Your task to perform on an android device: change the clock display to show seconds Image 0: 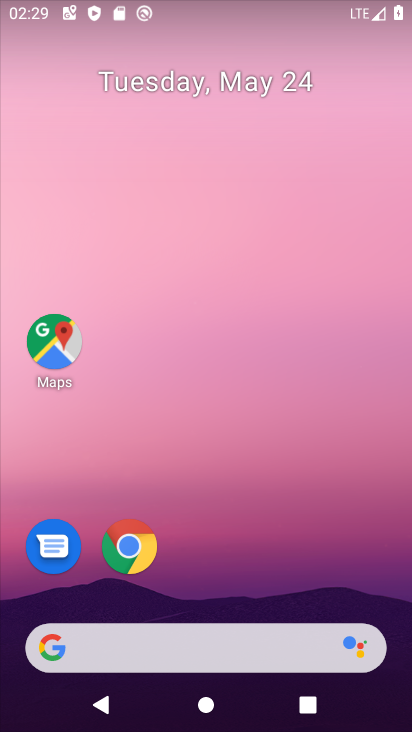
Step 0: drag from (139, 574) to (285, 186)
Your task to perform on an android device: change the clock display to show seconds Image 1: 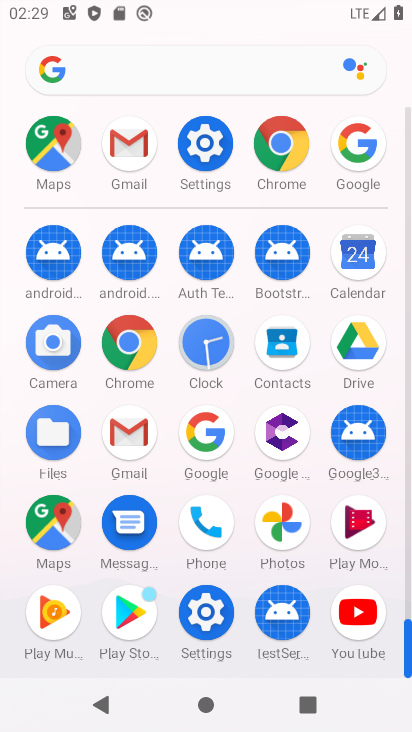
Step 1: click (202, 607)
Your task to perform on an android device: change the clock display to show seconds Image 2: 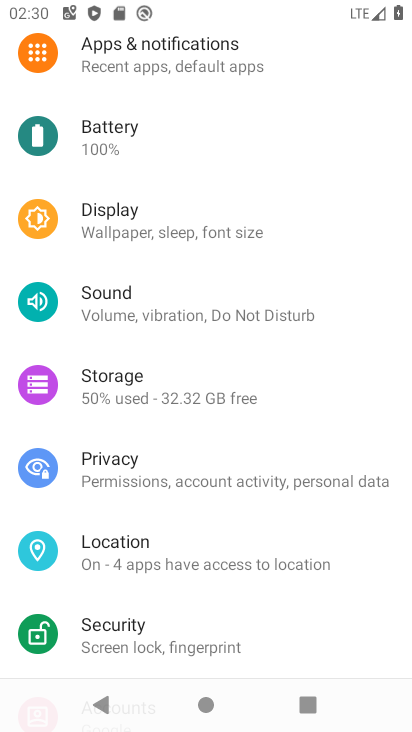
Step 2: press home button
Your task to perform on an android device: change the clock display to show seconds Image 3: 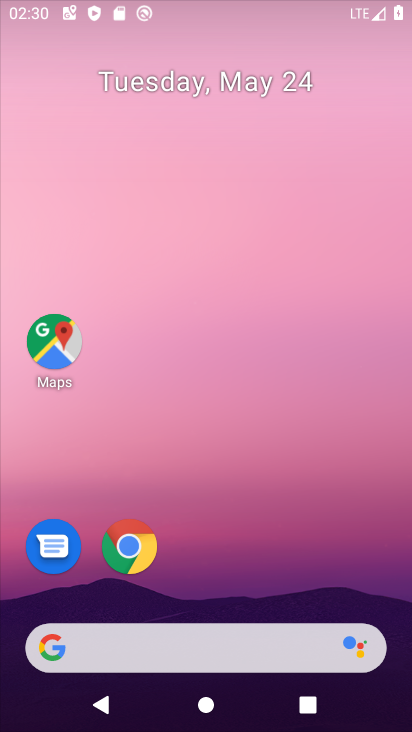
Step 3: drag from (258, 595) to (324, 122)
Your task to perform on an android device: change the clock display to show seconds Image 4: 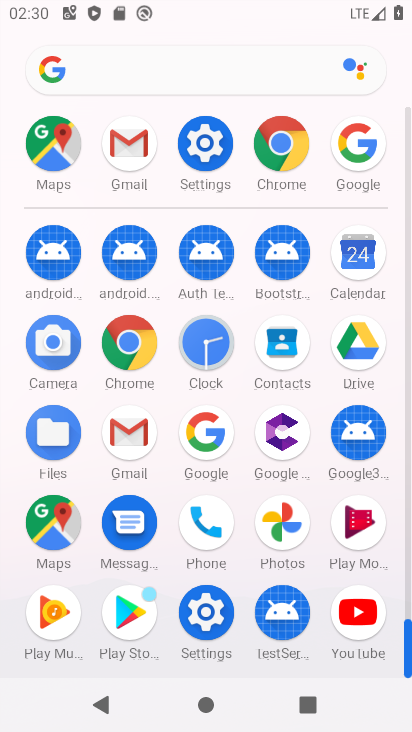
Step 4: click (217, 346)
Your task to perform on an android device: change the clock display to show seconds Image 5: 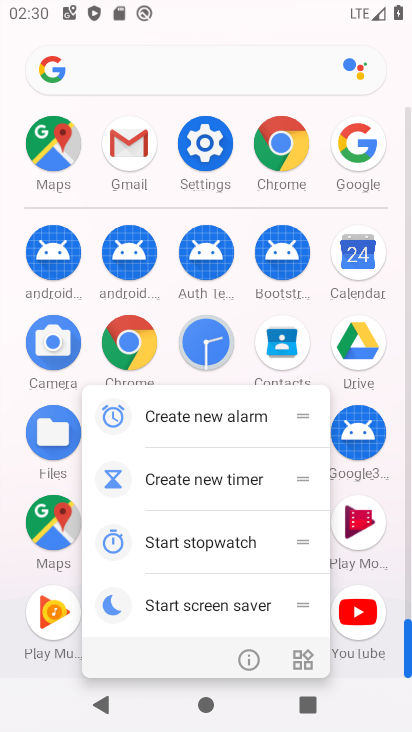
Step 5: click (248, 658)
Your task to perform on an android device: change the clock display to show seconds Image 6: 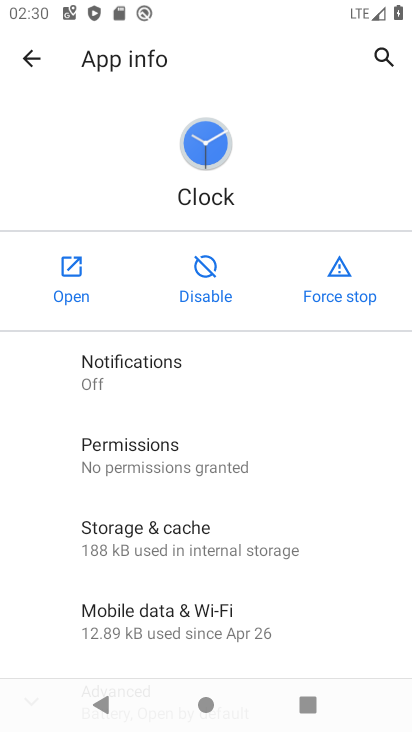
Step 6: click (84, 260)
Your task to perform on an android device: change the clock display to show seconds Image 7: 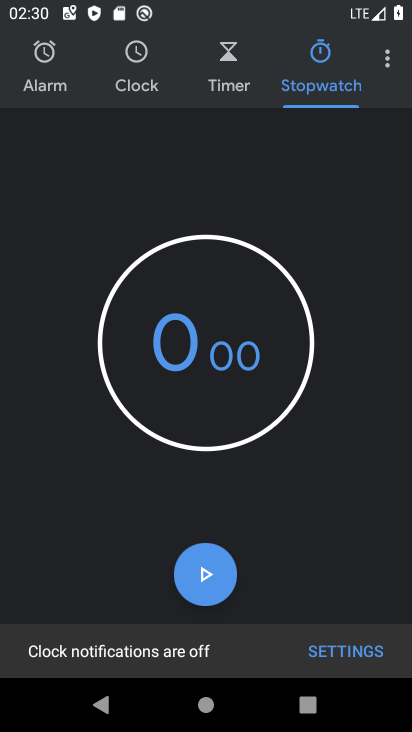
Step 7: click (388, 44)
Your task to perform on an android device: change the clock display to show seconds Image 8: 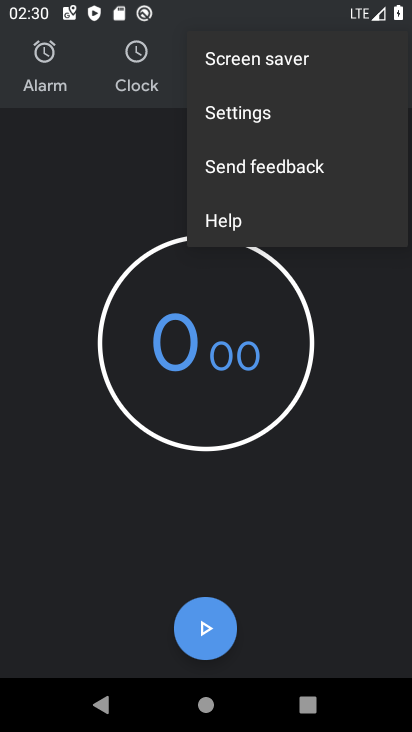
Step 8: click (291, 125)
Your task to perform on an android device: change the clock display to show seconds Image 9: 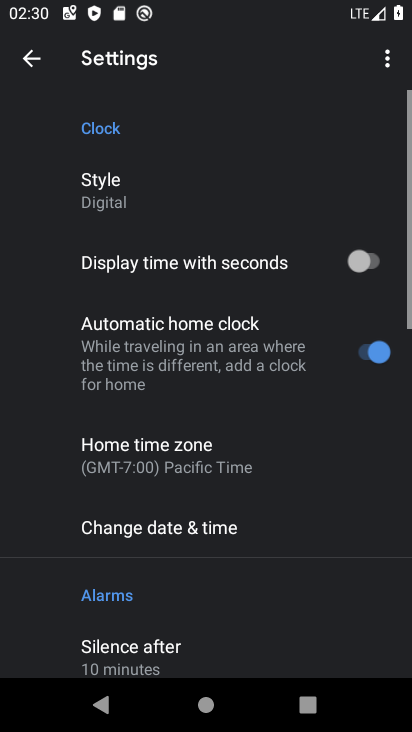
Step 9: drag from (218, 149) to (230, 9)
Your task to perform on an android device: change the clock display to show seconds Image 10: 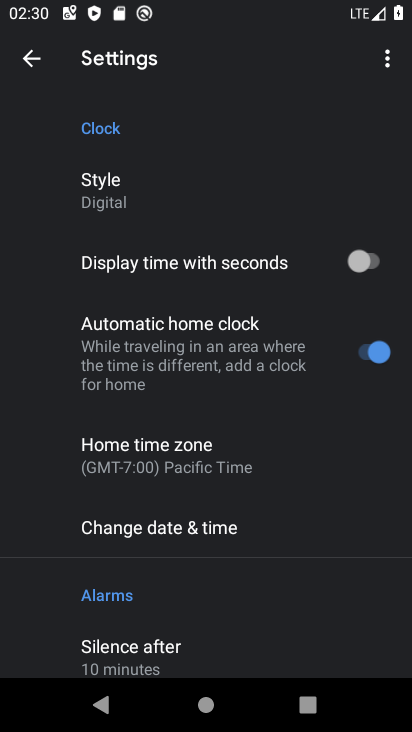
Step 10: click (357, 253)
Your task to perform on an android device: change the clock display to show seconds Image 11: 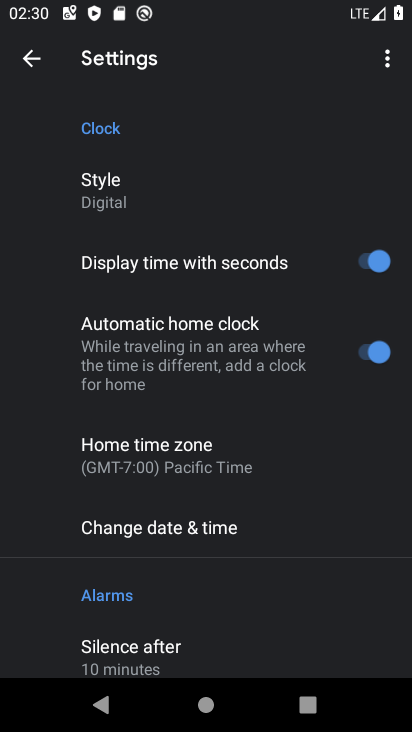
Step 11: task complete